Your task to perform on an android device: Search for apple airpods on bestbuy, select the first entry, and add it to the cart. Image 0: 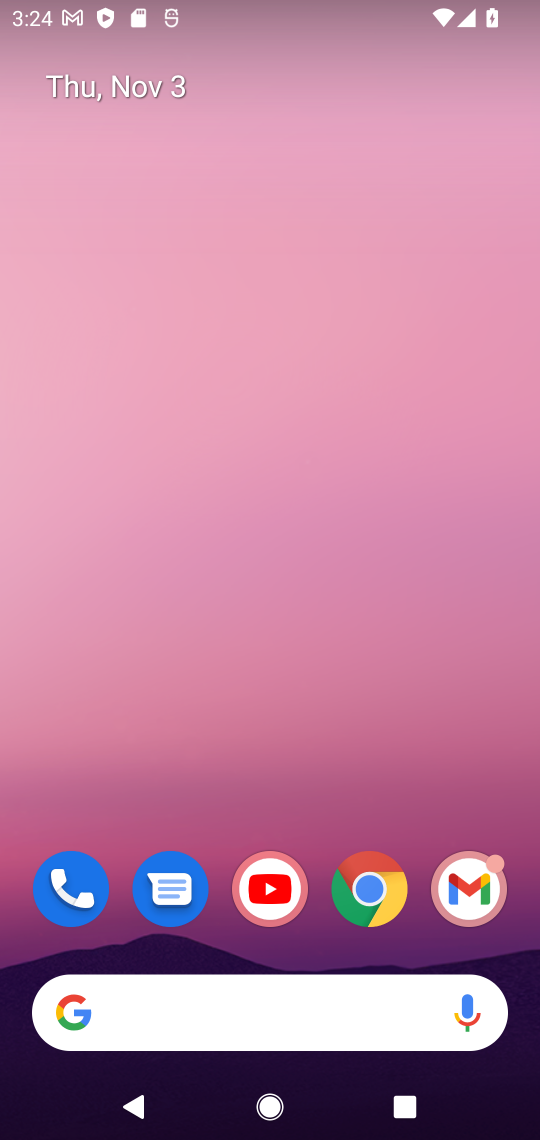
Step 0: task complete